Your task to perform on an android device: Open location settings Image 0: 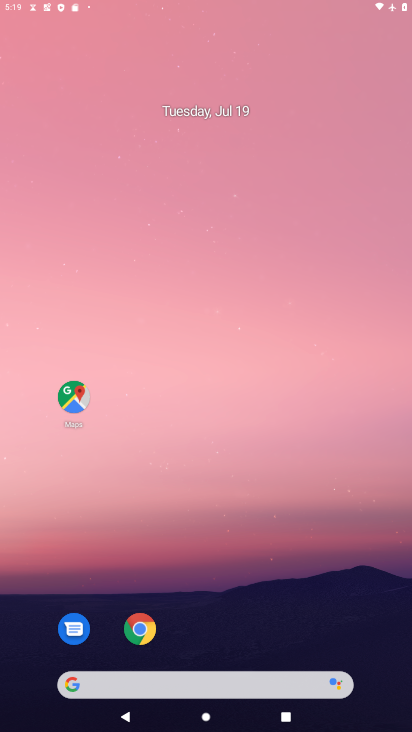
Step 0: press home button
Your task to perform on an android device: Open location settings Image 1: 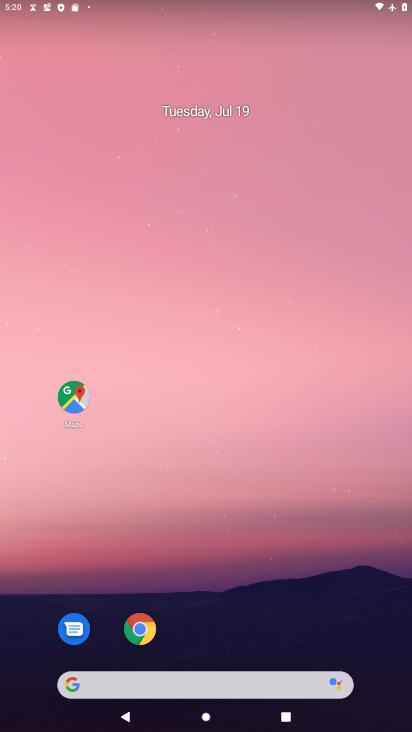
Step 1: drag from (232, 652) to (297, 2)
Your task to perform on an android device: Open location settings Image 2: 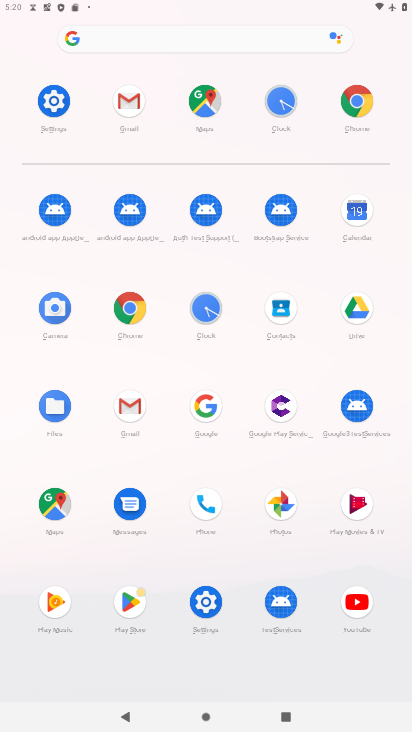
Step 2: click (43, 112)
Your task to perform on an android device: Open location settings Image 3: 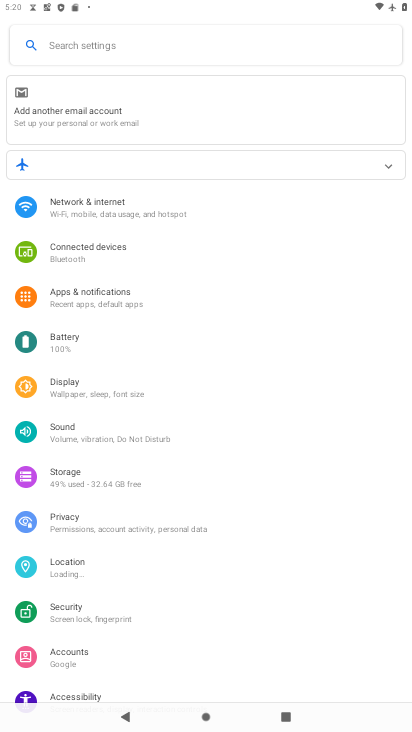
Step 3: click (69, 570)
Your task to perform on an android device: Open location settings Image 4: 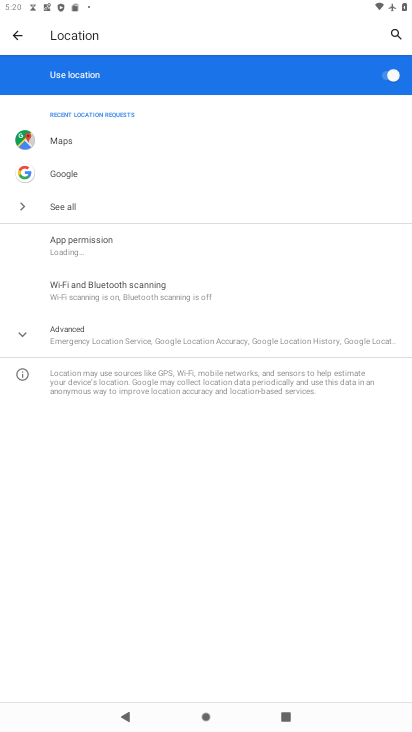
Step 4: task complete